Your task to perform on an android device: Open calendar and show me the second week of next month Image 0: 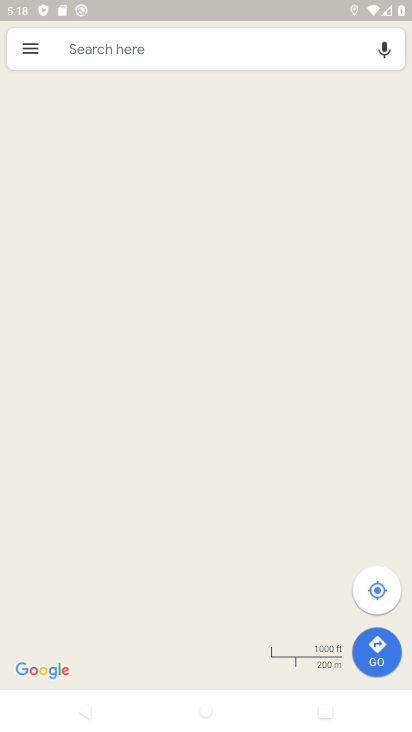
Step 0: press back button
Your task to perform on an android device: Open calendar and show me the second week of next month Image 1: 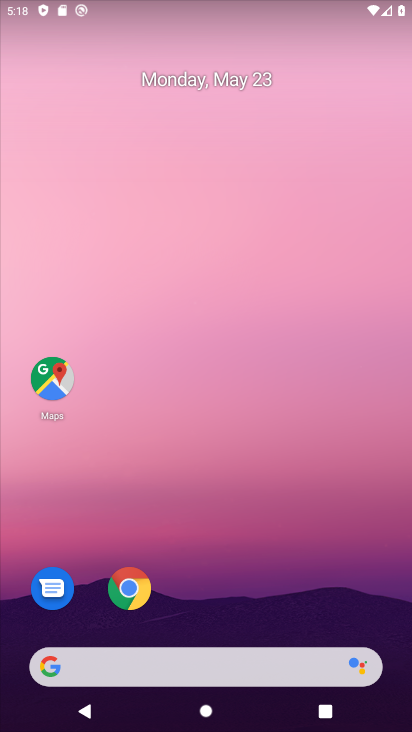
Step 1: drag from (280, 567) to (191, 8)
Your task to perform on an android device: Open calendar and show me the second week of next month Image 2: 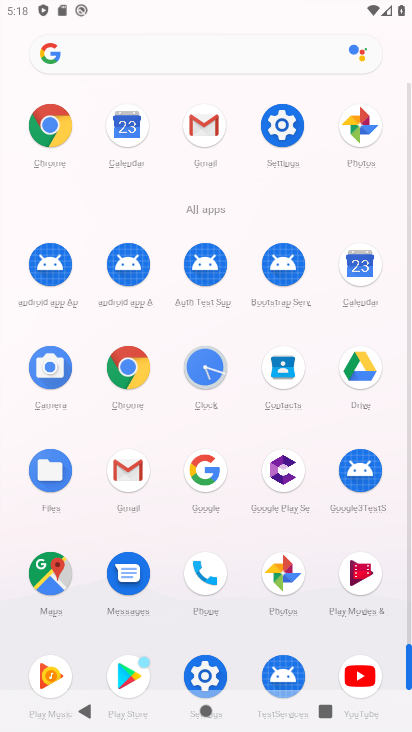
Step 2: drag from (13, 587) to (13, 228)
Your task to perform on an android device: Open calendar and show me the second week of next month Image 3: 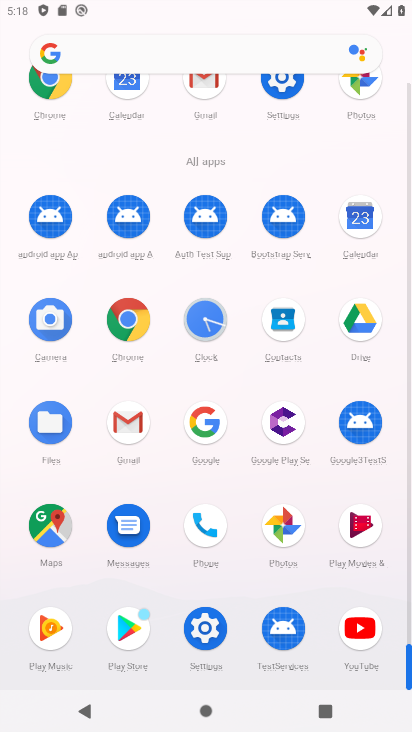
Step 3: drag from (1, 499) to (23, 220)
Your task to perform on an android device: Open calendar and show me the second week of next month Image 4: 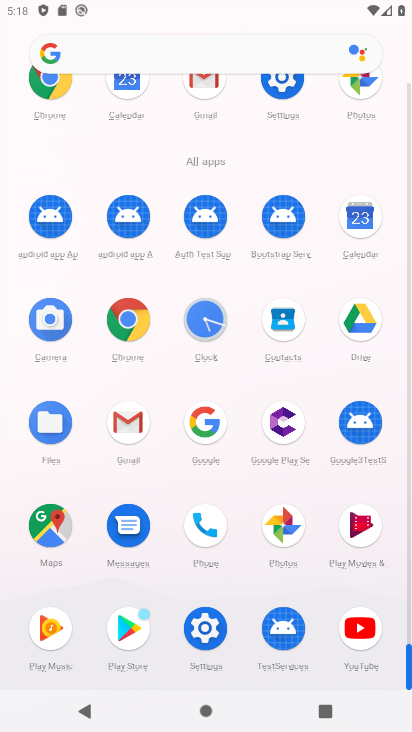
Step 4: click (363, 217)
Your task to perform on an android device: Open calendar and show me the second week of next month Image 5: 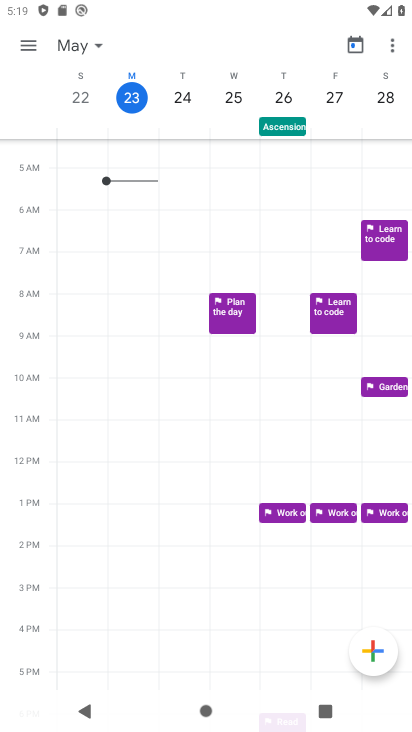
Step 5: click (28, 38)
Your task to perform on an android device: Open calendar and show me the second week of next month Image 6: 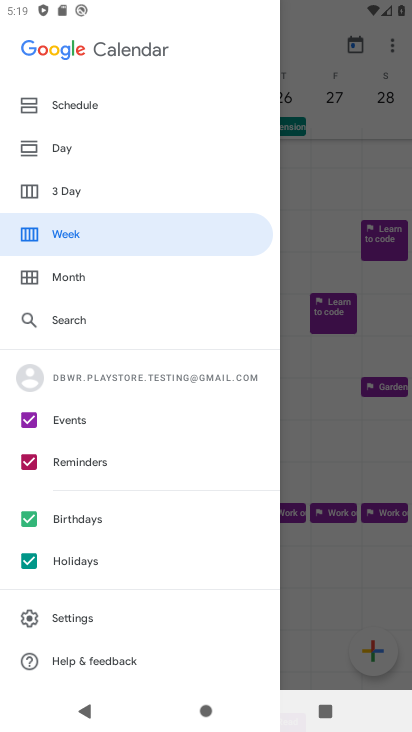
Step 6: drag from (138, 115) to (128, 515)
Your task to perform on an android device: Open calendar and show me the second week of next month Image 7: 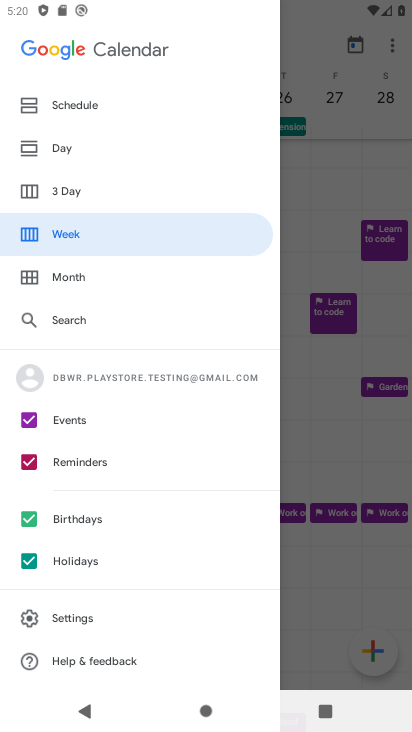
Step 7: click (321, 211)
Your task to perform on an android device: Open calendar and show me the second week of next month Image 8: 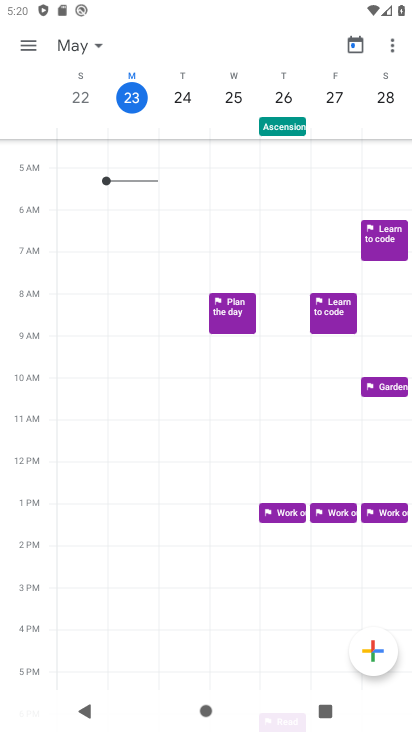
Step 8: click (27, 37)
Your task to perform on an android device: Open calendar and show me the second week of next month Image 9: 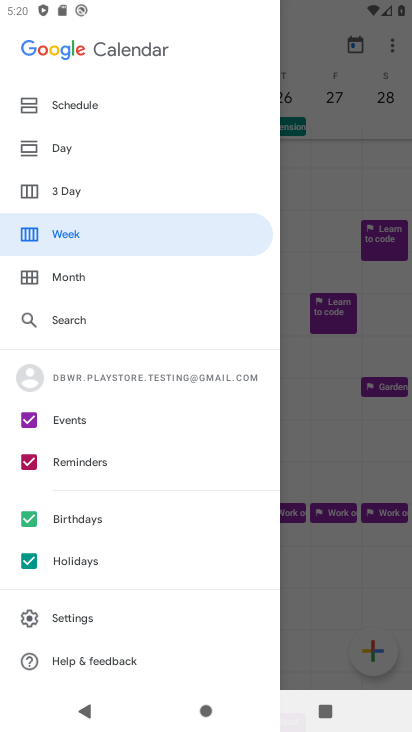
Step 9: click (309, 184)
Your task to perform on an android device: Open calendar and show me the second week of next month Image 10: 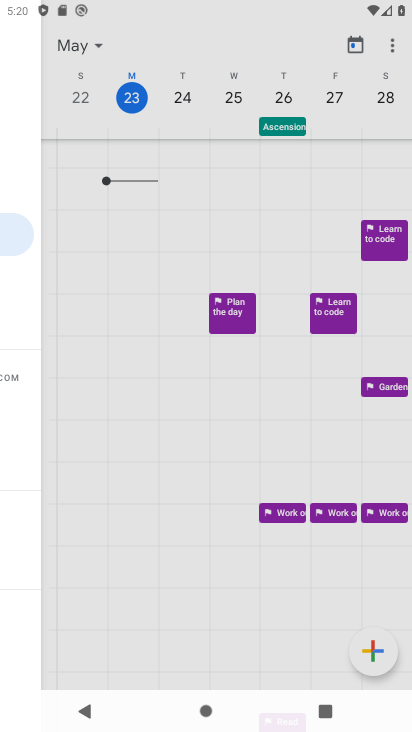
Step 10: click (317, 97)
Your task to perform on an android device: Open calendar and show me the second week of next month Image 11: 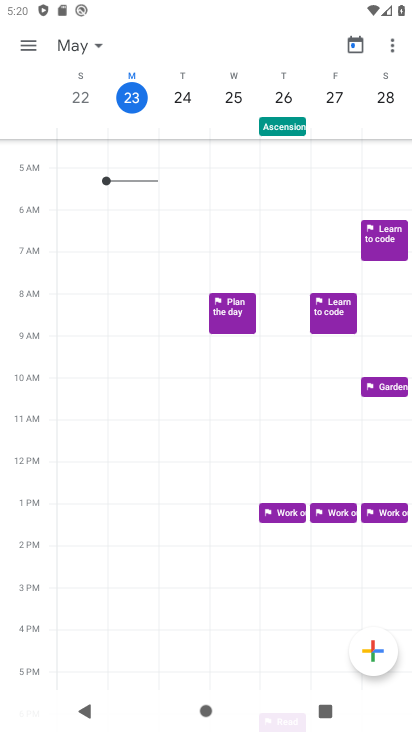
Step 11: click (87, 38)
Your task to perform on an android device: Open calendar and show me the second week of next month Image 12: 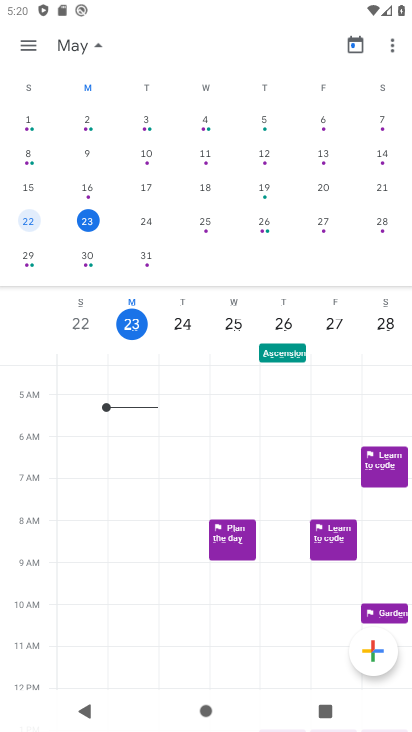
Step 12: drag from (393, 171) to (3, 156)
Your task to perform on an android device: Open calendar and show me the second week of next month Image 13: 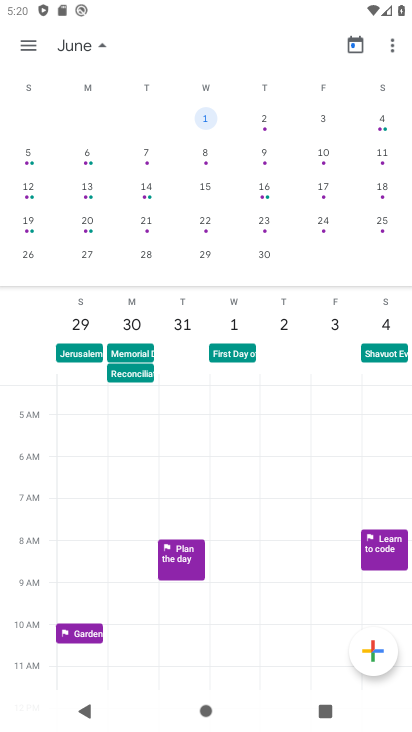
Step 13: click (29, 144)
Your task to perform on an android device: Open calendar and show me the second week of next month Image 14: 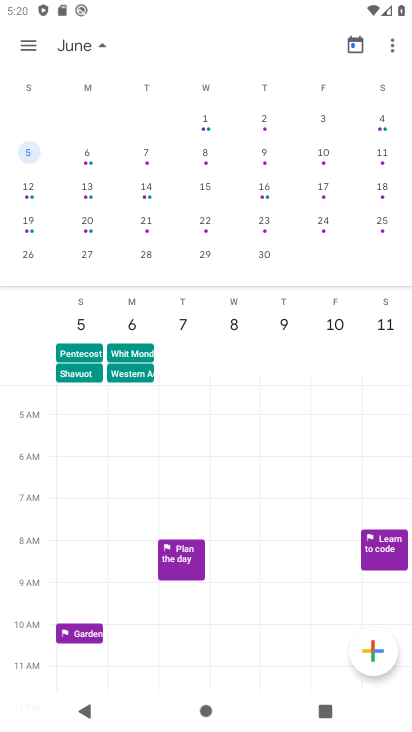
Step 14: click (18, 45)
Your task to perform on an android device: Open calendar and show me the second week of next month Image 15: 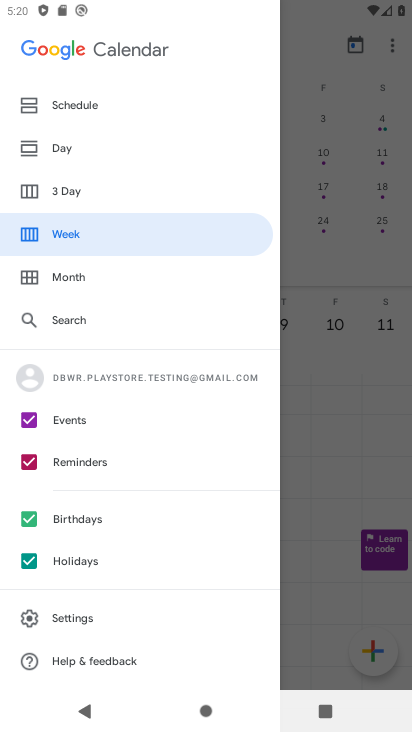
Step 15: click (92, 232)
Your task to perform on an android device: Open calendar and show me the second week of next month Image 16: 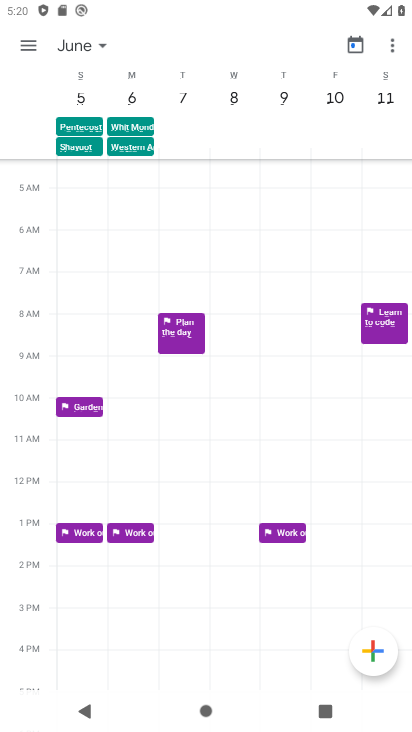
Step 16: task complete